Your task to perform on an android device: Turn off the flashlight Image 0: 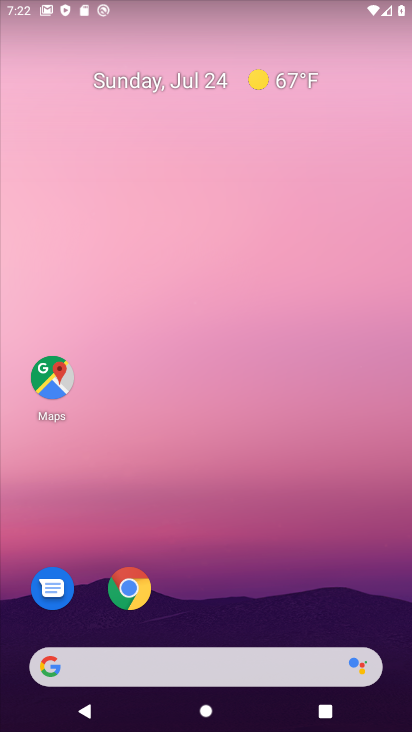
Step 0: drag from (244, 648) to (238, 82)
Your task to perform on an android device: Turn off the flashlight Image 1: 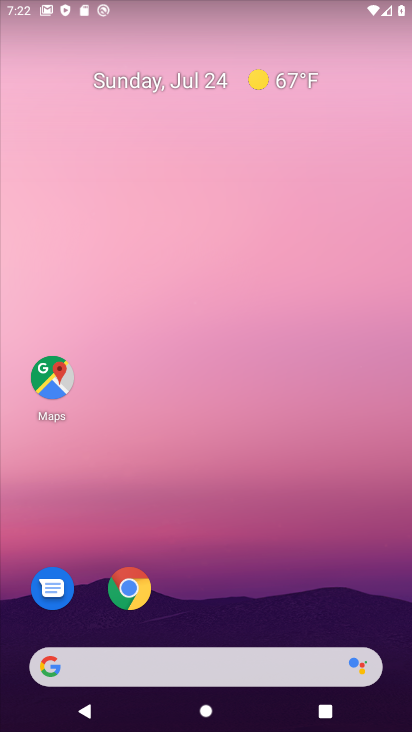
Step 1: drag from (217, 682) to (211, 327)
Your task to perform on an android device: Turn off the flashlight Image 2: 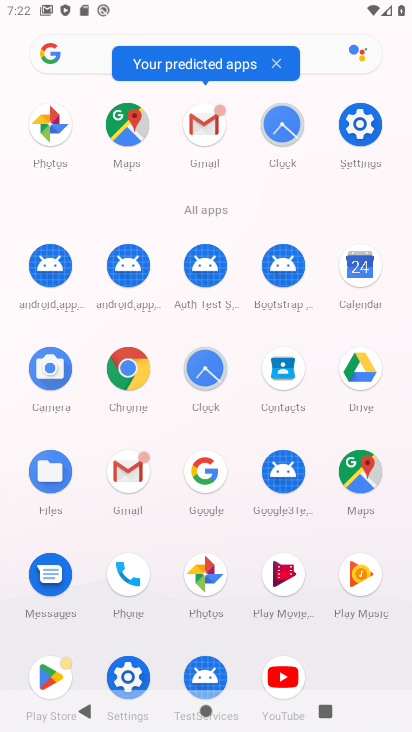
Step 2: click (355, 114)
Your task to perform on an android device: Turn off the flashlight Image 3: 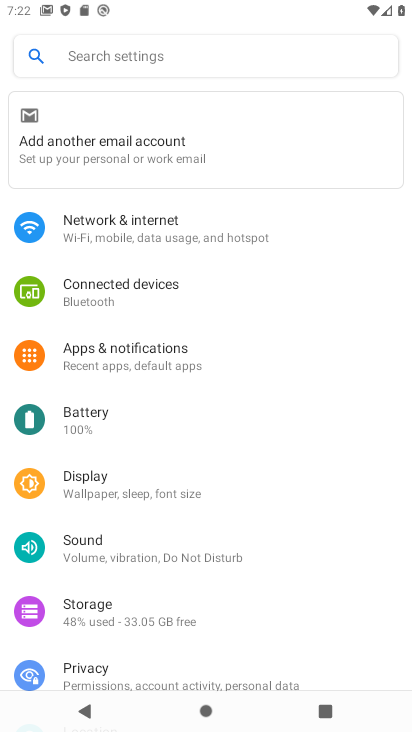
Step 3: task complete